Your task to perform on an android device: create a new album in the google photos Image 0: 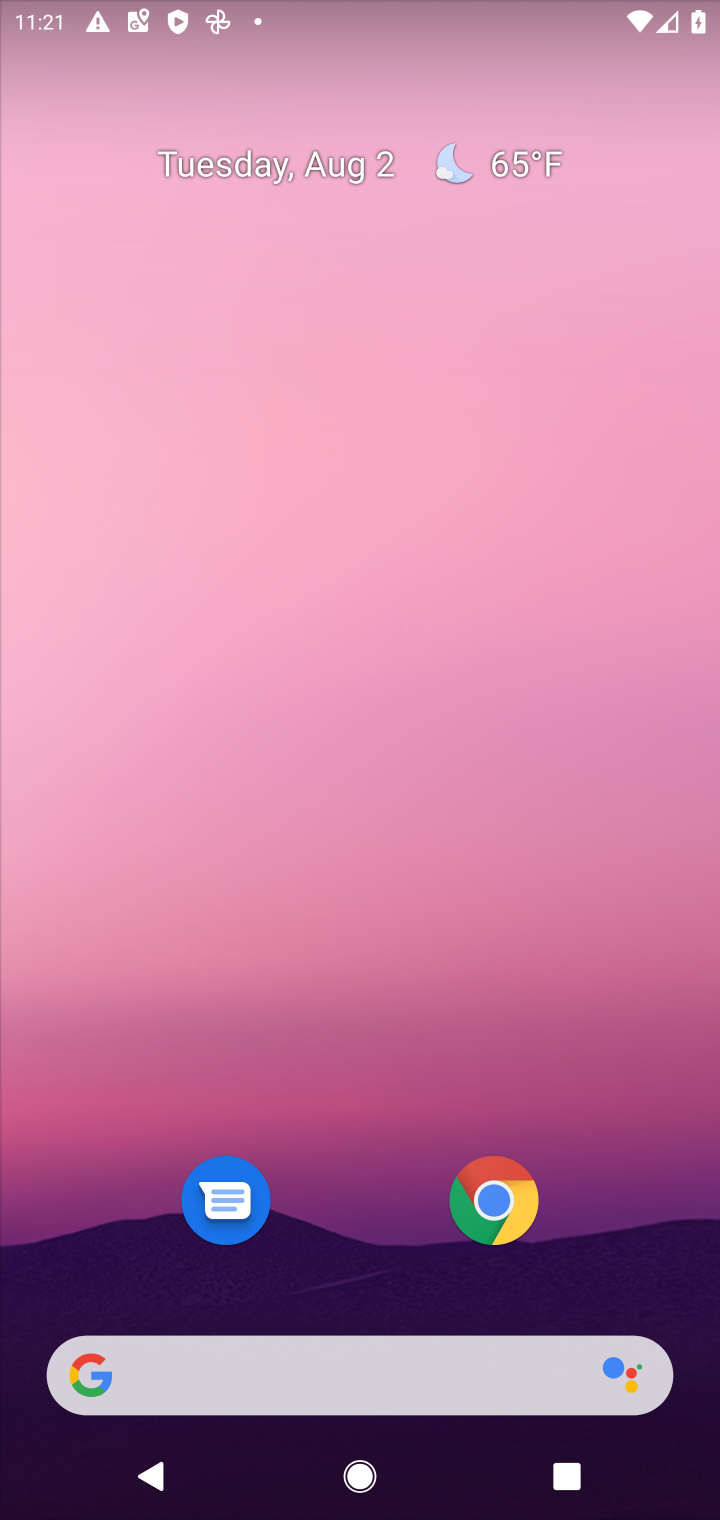
Step 0: drag from (671, 1257) to (564, 162)
Your task to perform on an android device: create a new album in the google photos Image 1: 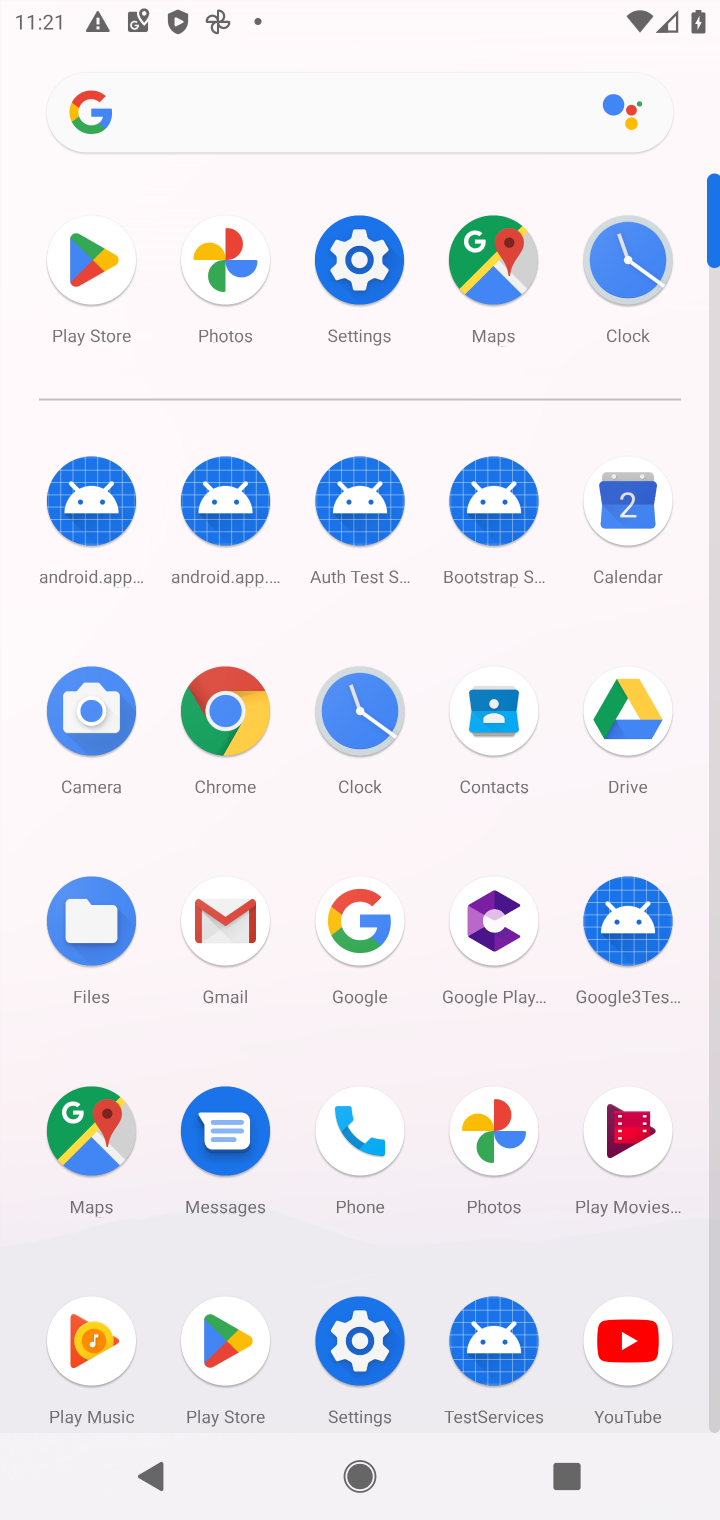
Step 1: click (502, 1137)
Your task to perform on an android device: create a new album in the google photos Image 2: 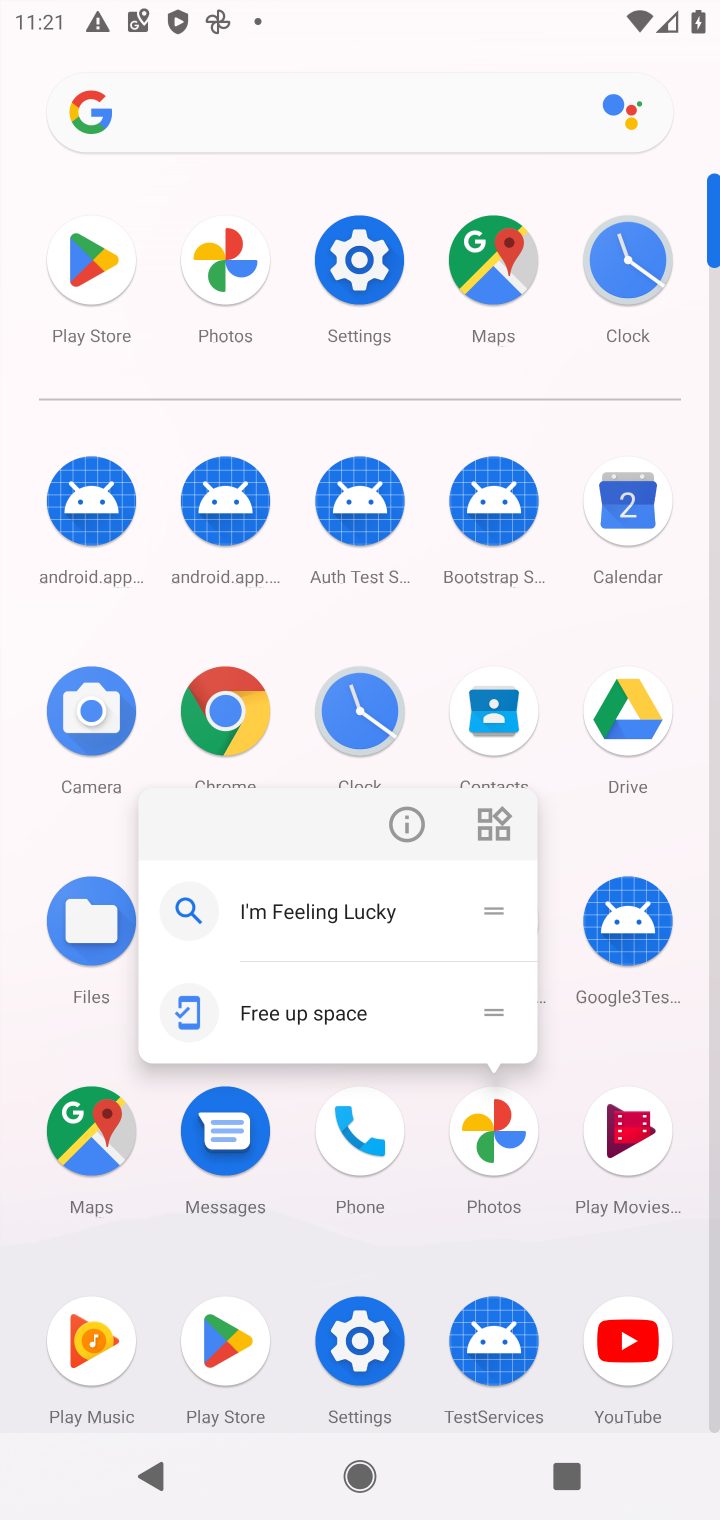
Step 2: click (495, 1121)
Your task to perform on an android device: create a new album in the google photos Image 3: 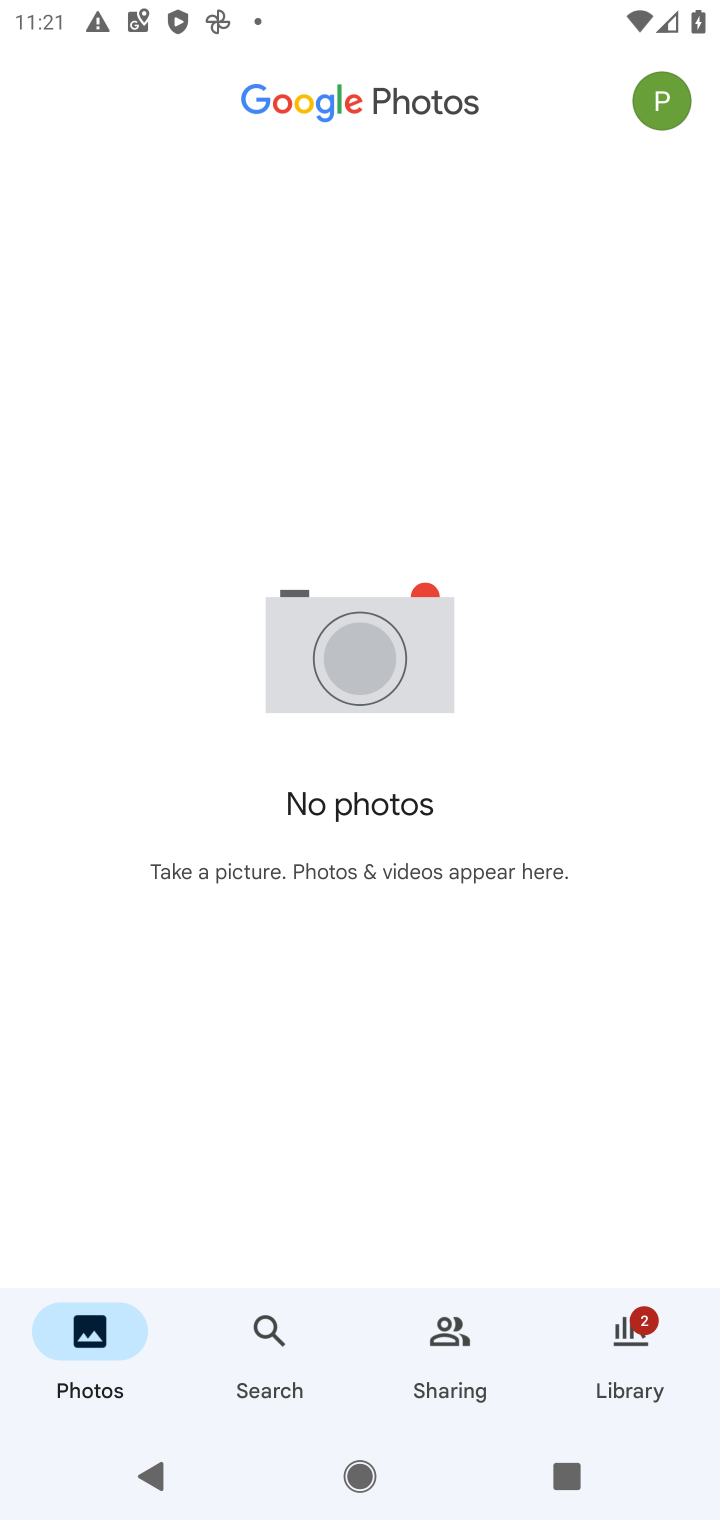
Step 3: click (648, 1349)
Your task to perform on an android device: create a new album in the google photos Image 4: 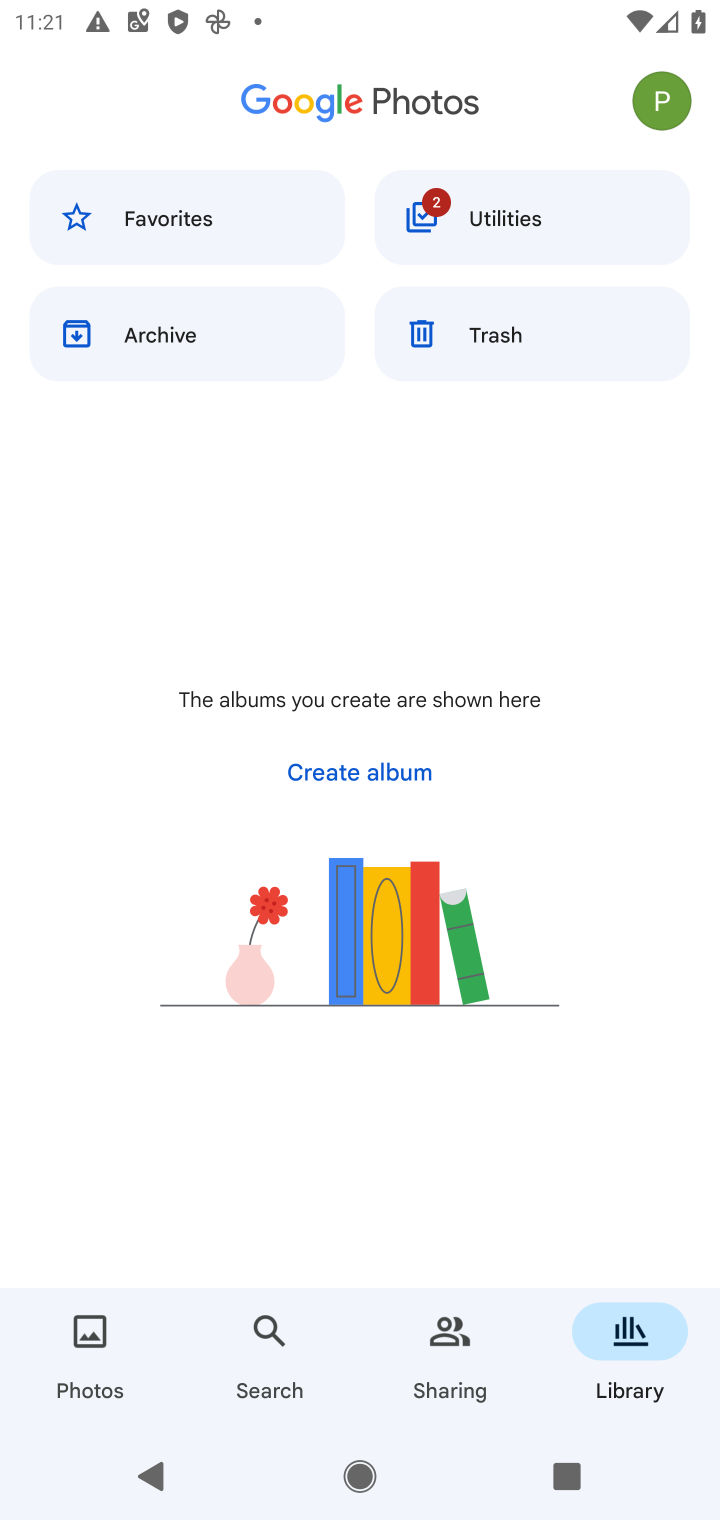
Step 4: click (341, 764)
Your task to perform on an android device: create a new album in the google photos Image 5: 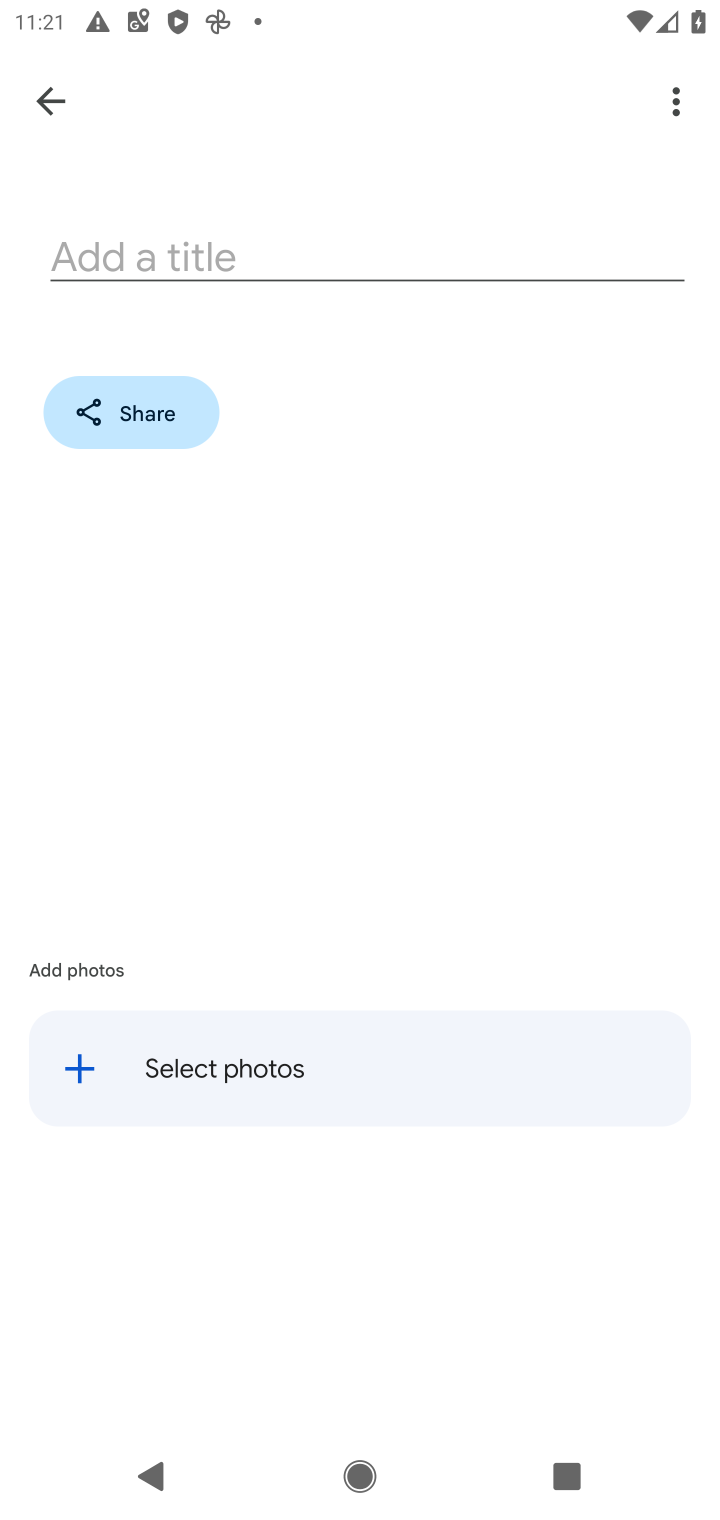
Step 5: click (151, 244)
Your task to perform on an android device: create a new album in the google photos Image 6: 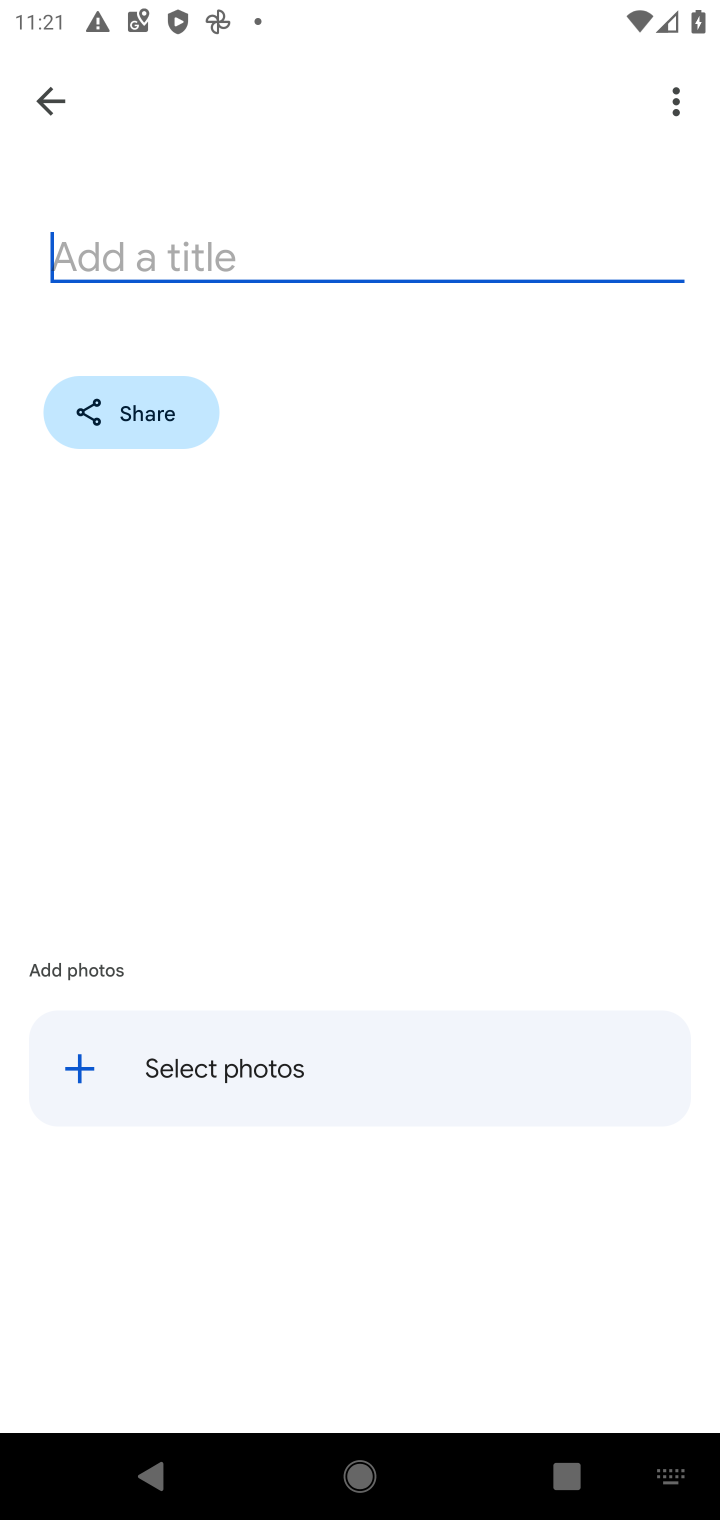
Step 6: type "mjmbd"
Your task to perform on an android device: create a new album in the google photos Image 7: 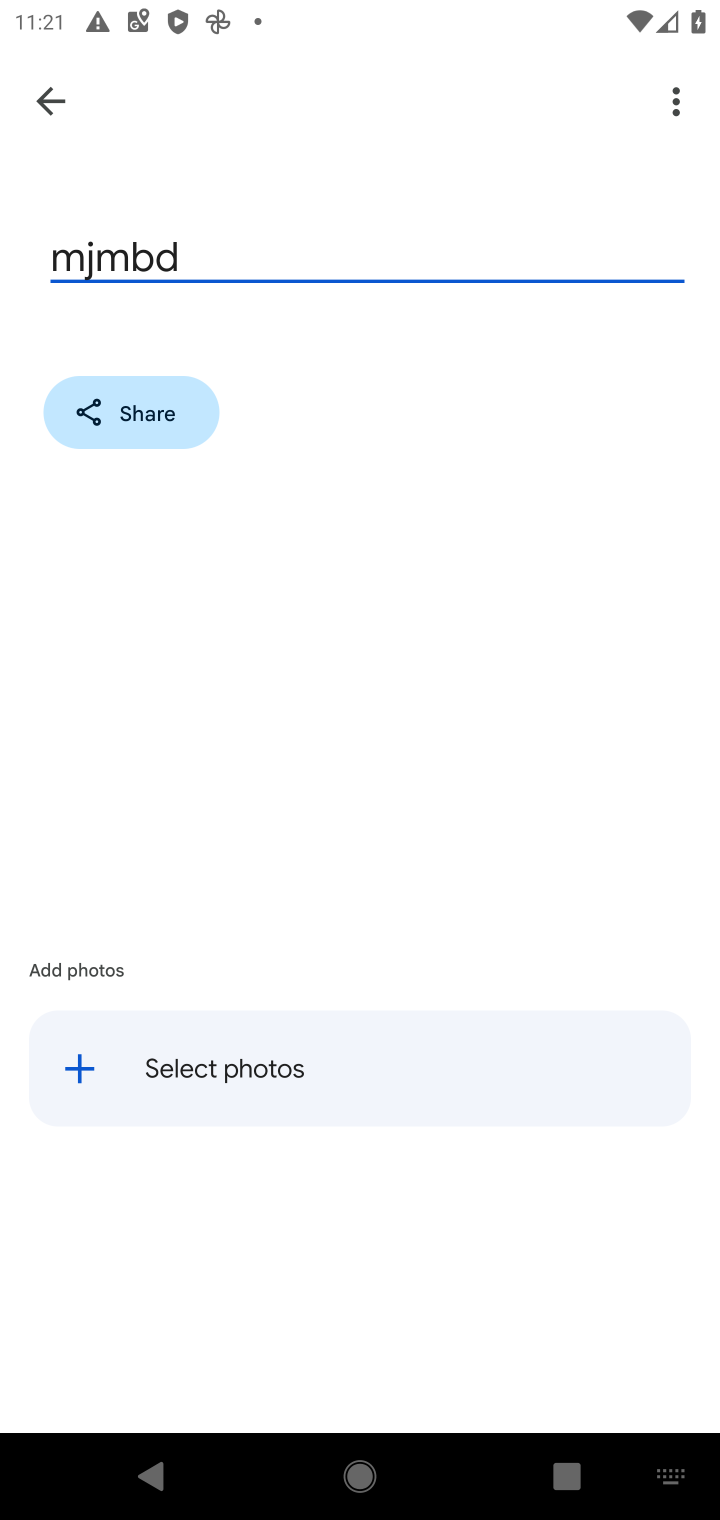
Step 7: click (76, 1070)
Your task to perform on an android device: create a new album in the google photos Image 8: 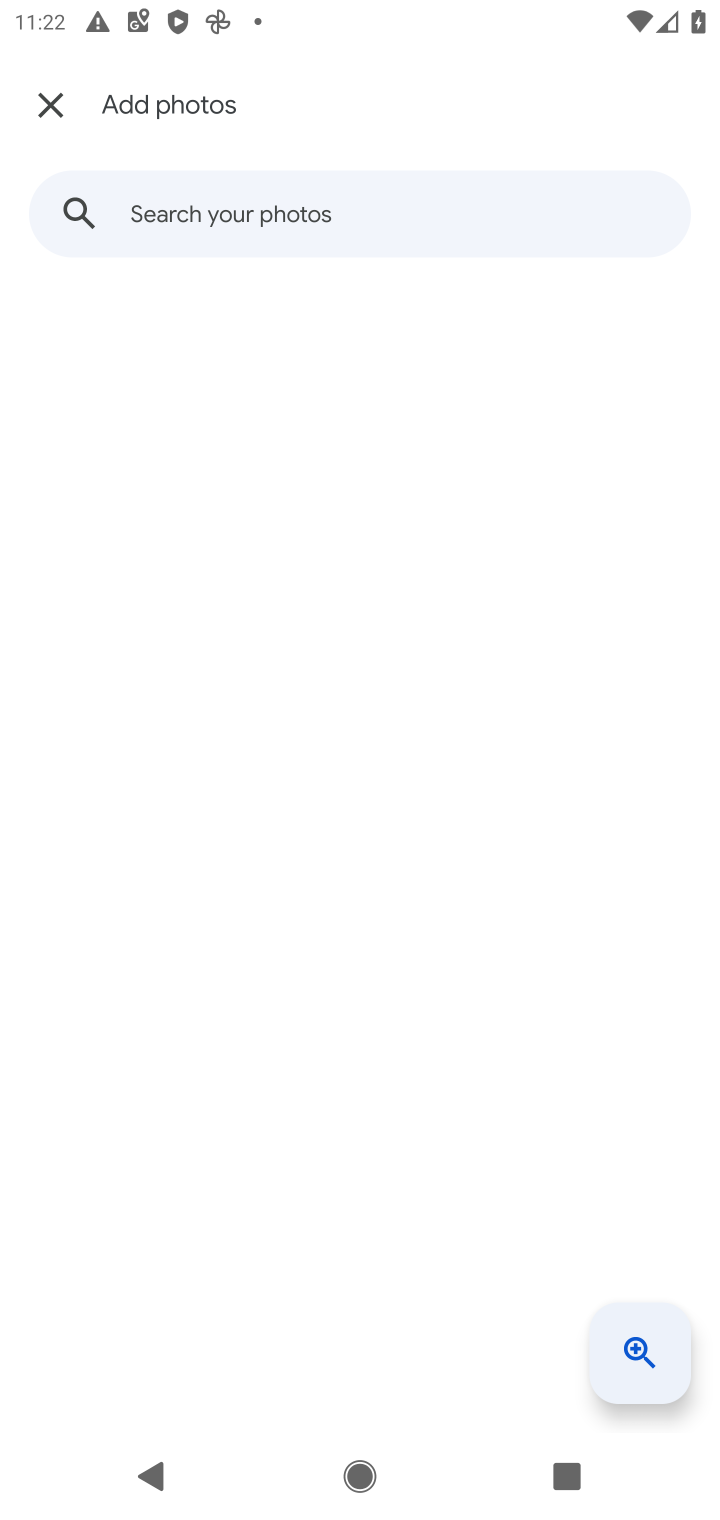
Step 8: task complete